Your task to perform on an android device: Open the calendar and show me this week's events Image 0: 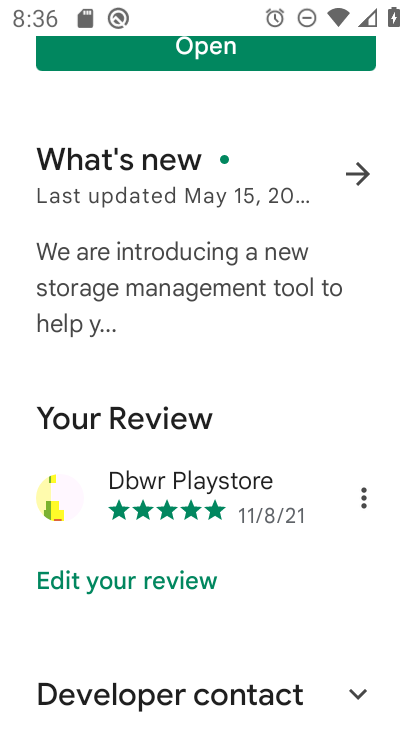
Step 0: press home button
Your task to perform on an android device: Open the calendar and show me this week's events Image 1: 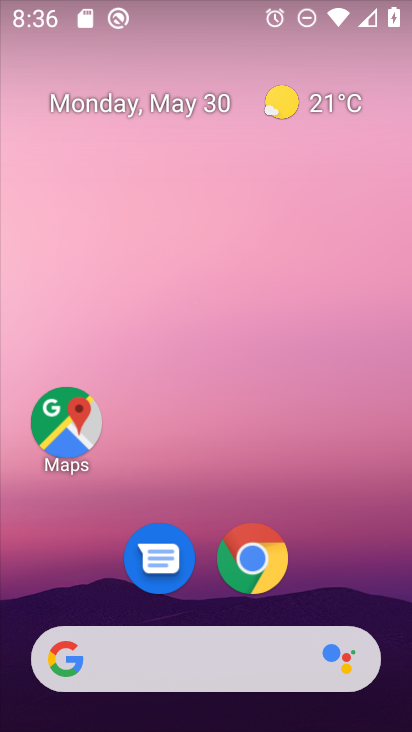
Step 1: drag from (319, 497) to (160, 0)
Your task to perform on an android device: Open the calendar and show me this week's events Image 2: 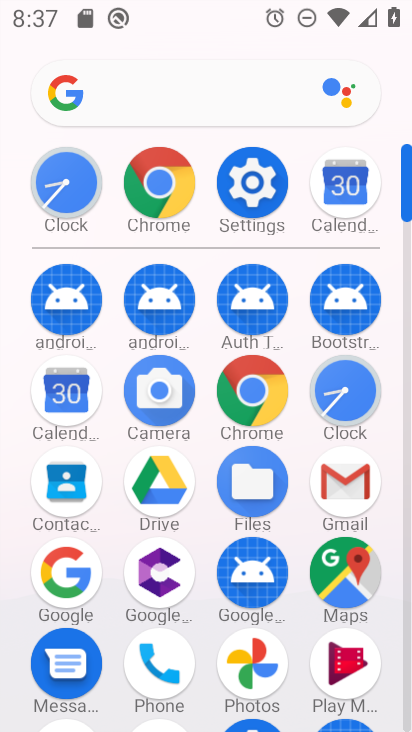
Step 2: click (58, 394)
Your task to perform on an android device: Open the calendar and show me this week's events Image 3: 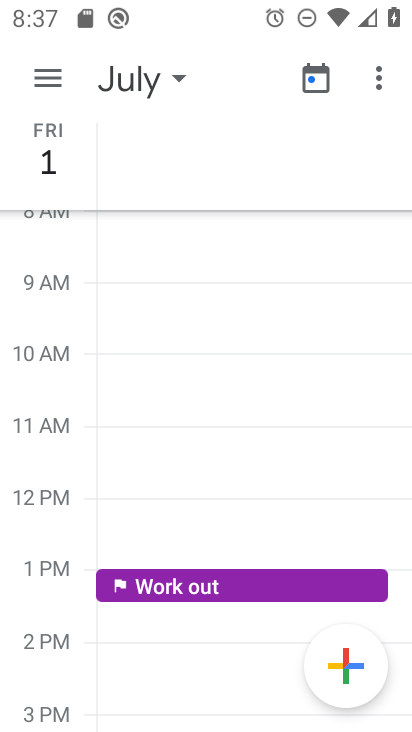
Step 3: click (44, 68)
Your task to perform on an android device: Open the calendar and show me this week's events Image 4: 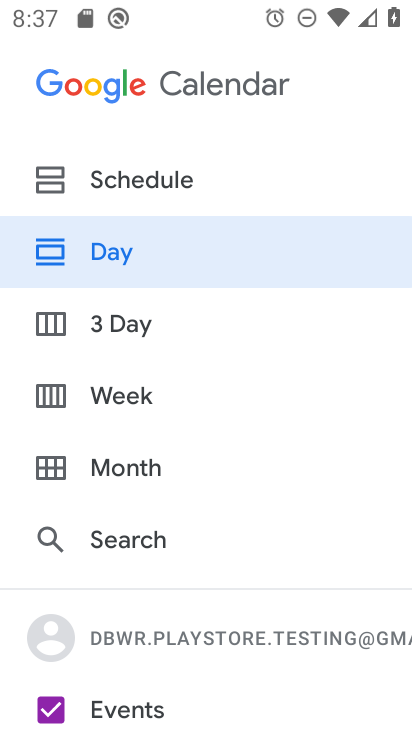
Step 4: click (128, 395)
Your task to perform on an android device: Open the calendar and show me this week's events Image 5: 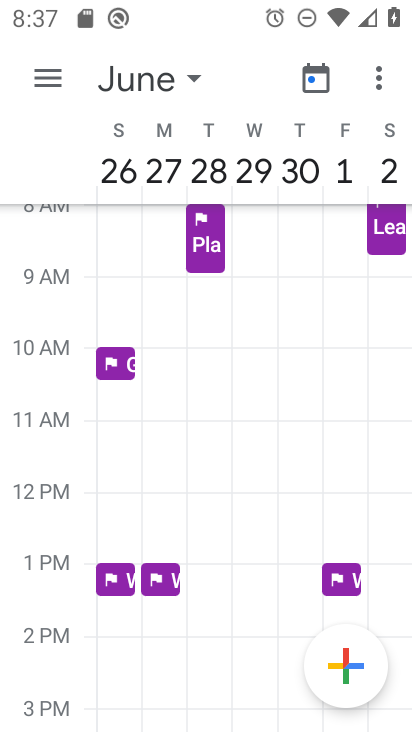
Step 5: click (188, 92)
Your task to perform on an android device: Open the calendar and show me this week's events Image 6: 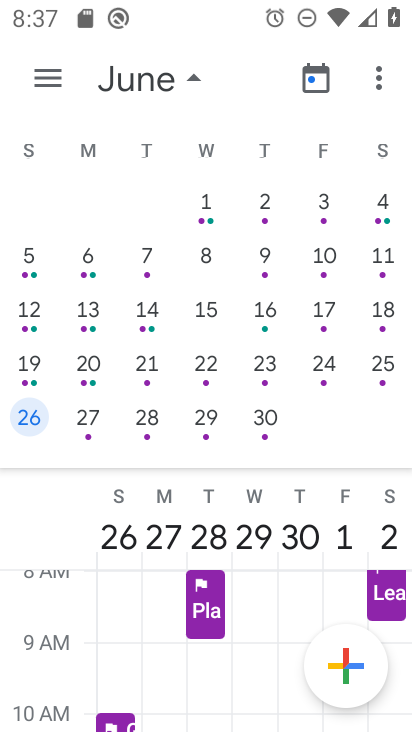
Step 6: drag from (40, 274) to (404, 269)
Your task to perform on an android device: Open the calendar and show me this week's events Image 7: 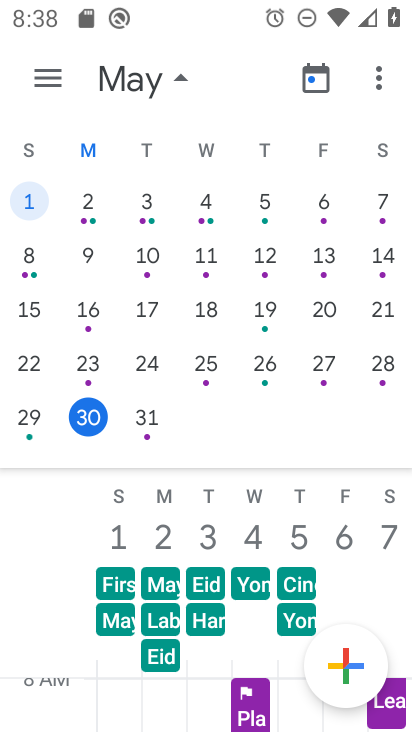
Step 7: drag from (246, 631) to (218, 362)
Your task to perform on an android device: Open the calendar and show me this week's events Image 8: 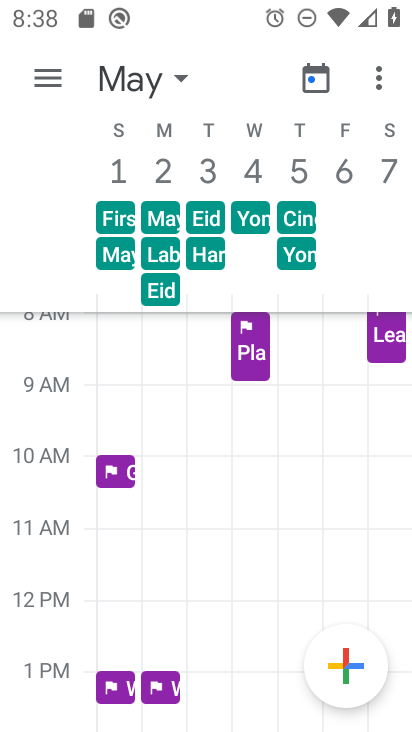
Step 8: drag from (184, 380) to (263, 658)
Your task to perform on an android device: Open the calendar and show me this week's events Image 9: 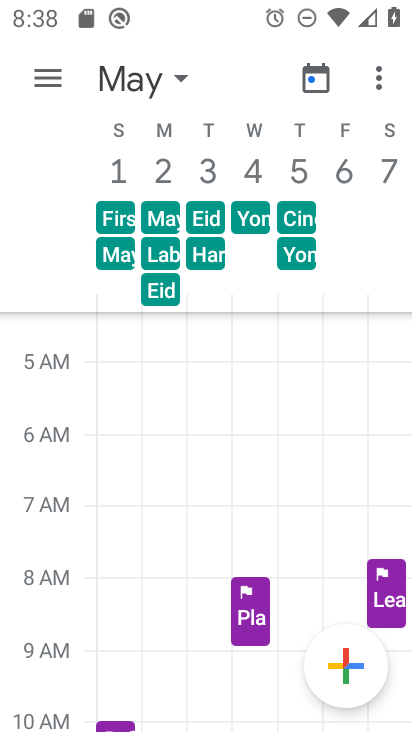
Step 9: drag from (323, 171) to (365, 707)
Your task to perform on an android device: Open the calendar and show me this week's events Image 10: 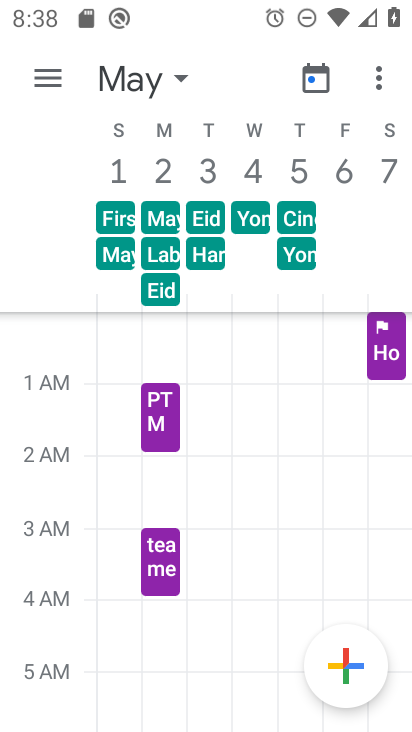
Step 10: drag from (167, 126) to (176, 434)
Your task to perform on an android device: Open the calendar and show me this week's events Image 11: 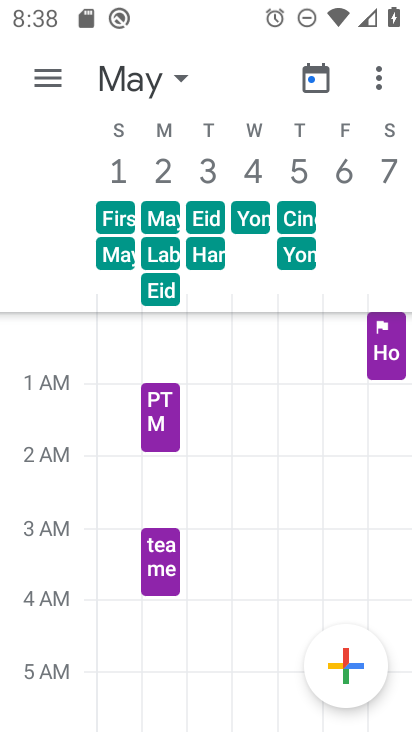
Step 11: click (172, 76)
Your task to perform on an android device: Open the calendar and show me this week's events Image 12: 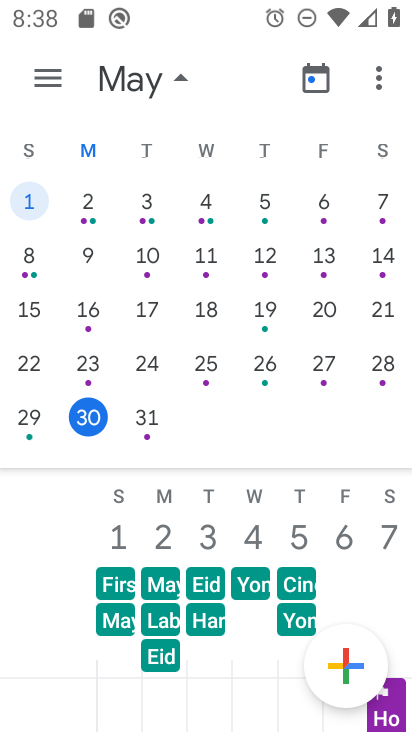
Step 12: click (91, 414)
Your task to perform on an android device: Open the calendar and show me this week's events Image 13: 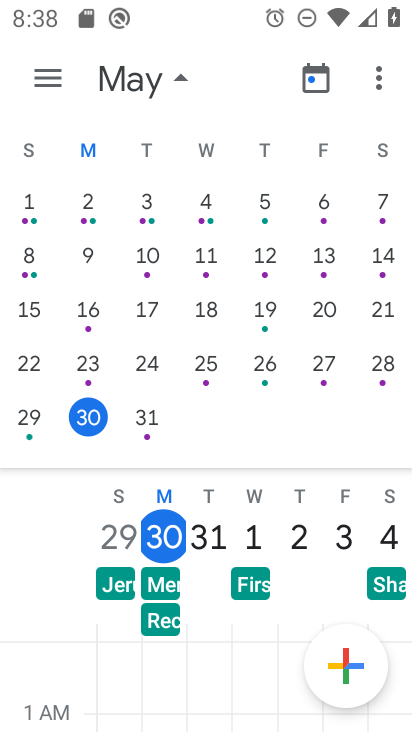
Step 13: task complete